Your task to perform on an android device: Go to network settings Image 0: 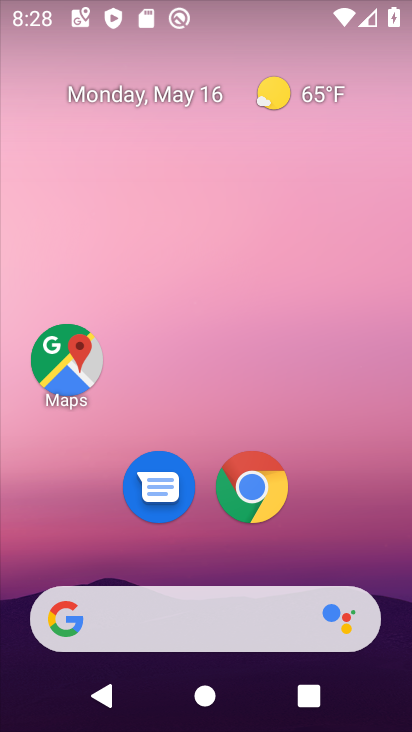
Step 0: drag from (355, 535) to (360, 155)
Your task to perform on an android device: Go to network settings Image 1: 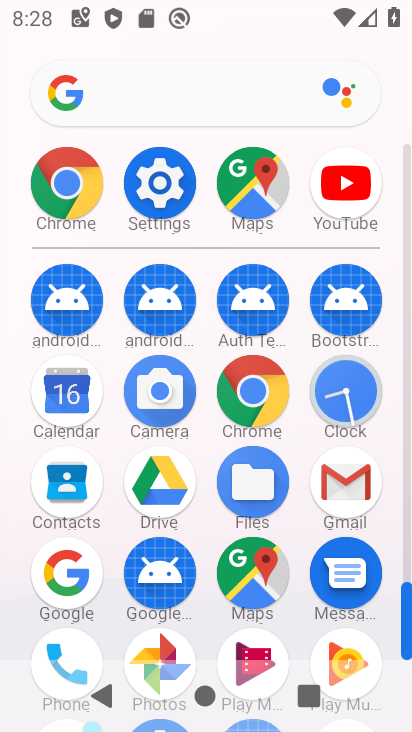
Step 1: click (176, 214)
Your task to perform on an android device: Go to network settings Image 2: 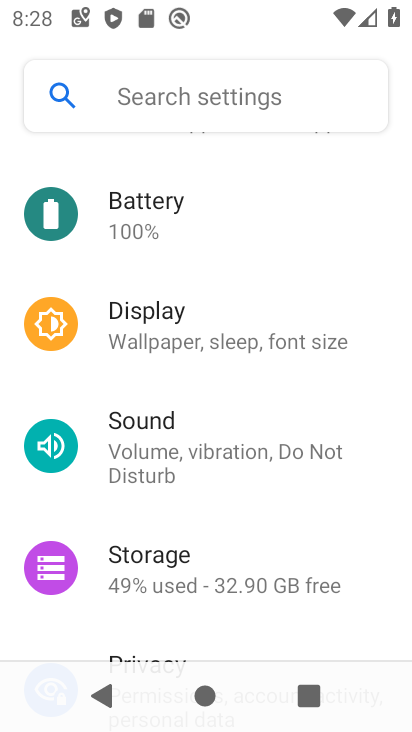
Step 2: drag from (354, 540) to (372, 378)
Your task to perform on an android device: Go to network settings Image 3: 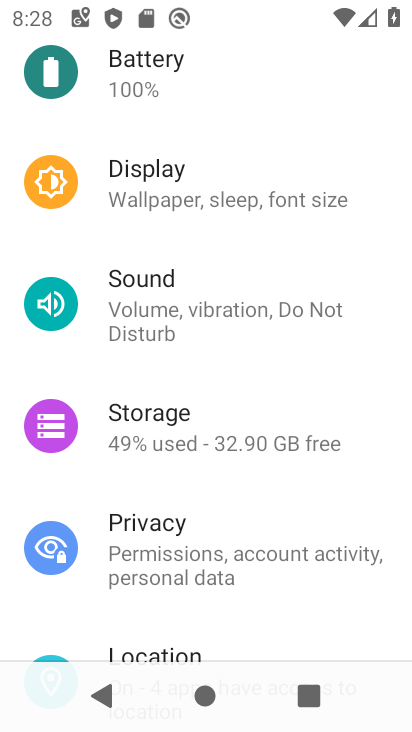
Step 3: drag from (343, 605) to (347, 379)
Your task to perform on an android device: Go to network settings Image 4: 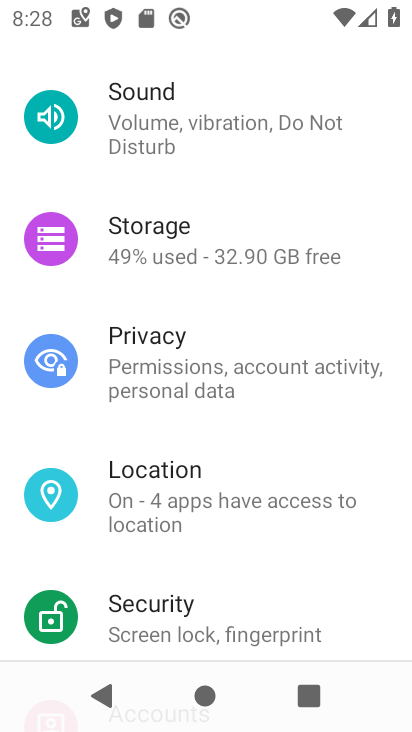
Step 4: drag from (341, 601) to (350, 411)
Your task to perform on an android device: Go to network settings Image 5: 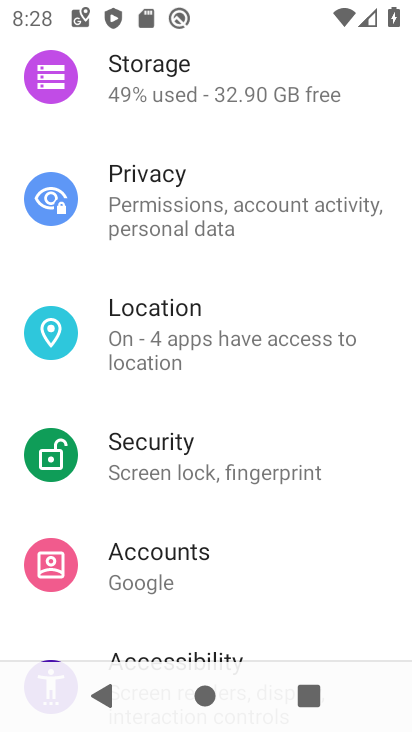
Step 5: drag from (340, 611) to (343, 446)
Your task to perform on an android device: Go to network settings Image 6: 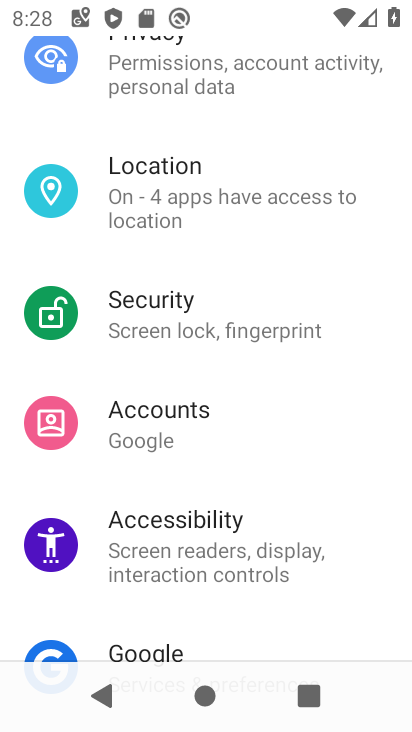
Step 6: drag from (344, 588) to (339, 440)
Your task to perform on an android device: Go to network settings Image 7: 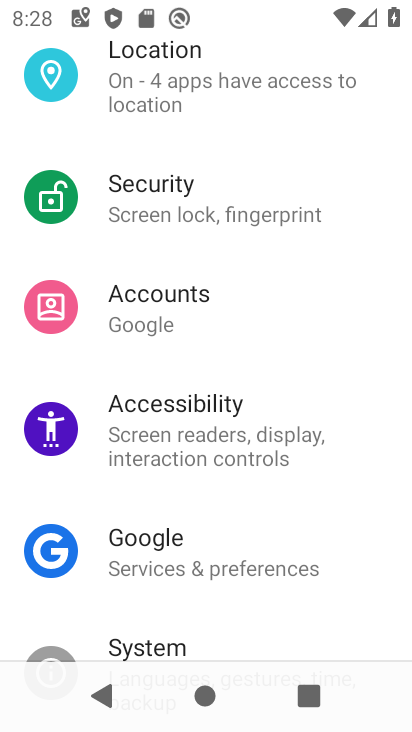
Step 7: drag from (326, 615) to (334, 460)
Your task to perform on an android device: Go to network settings Image 8: 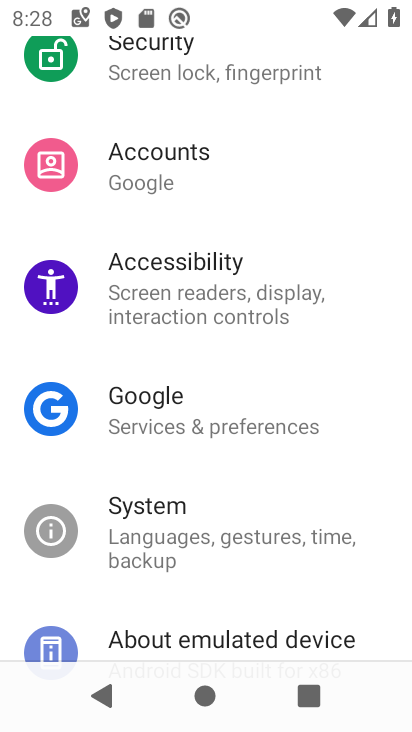
Step 8: drag from (315, 586) to (327, 436)
Your task to perform on an android device: Go to network settings Image 9: 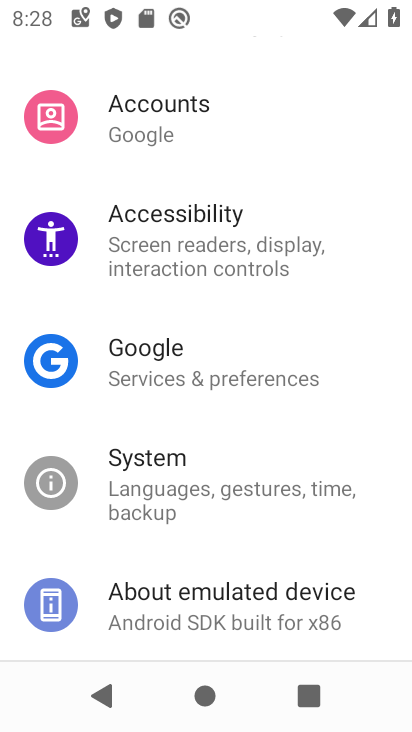
Step 9: drag from (347, 303) to (329, 528)
Your task to perform on an android device: Go to network settings Image 10: 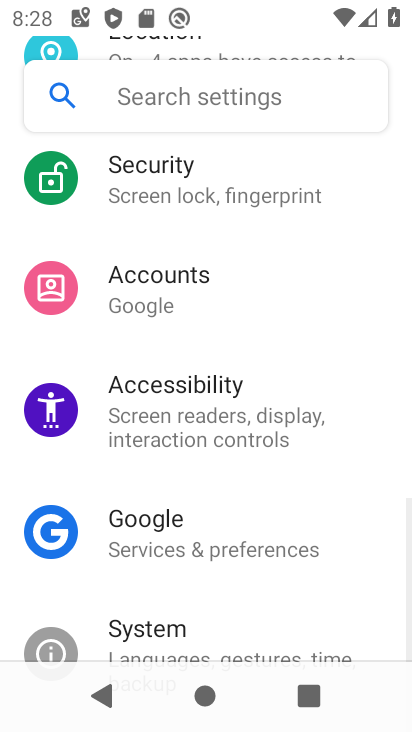
Step 10: drag from (348, 321) to (345, 450)
Your task to perform on an android device: Go to network settings Image 11: 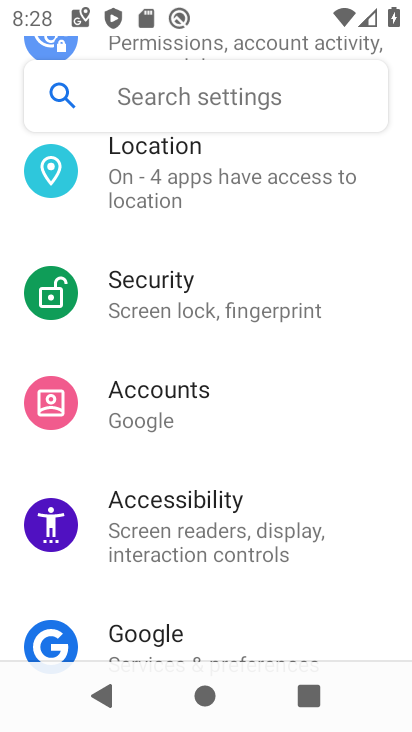
Step 11: drag from (358, 290) to (350, 433)
Your task to perform on an android device: Go to network settings Image 12: 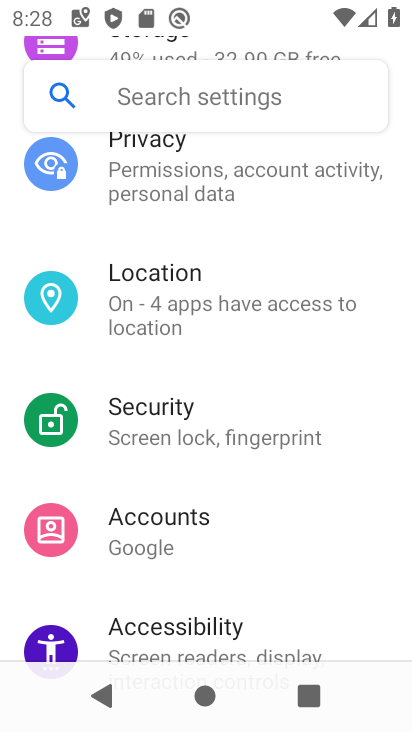
Step 12: drag from (366, 240) to (352, 407)
Your task to perform on an android device: Go to network settings Image 13: 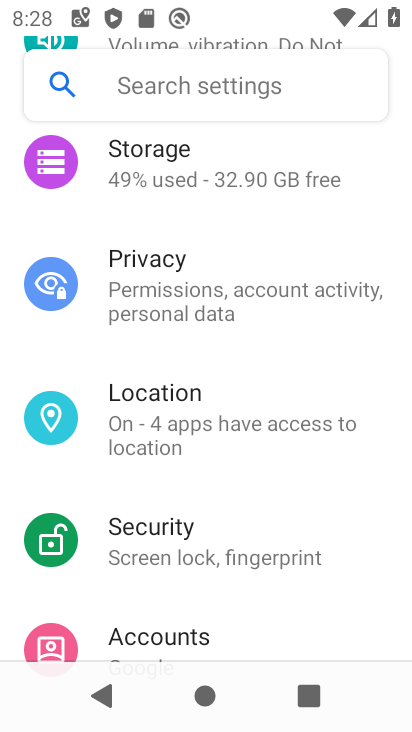
Step 13: drag from (377, 171) to (352, 406)
Your task to perform on an android device: Go to network settings Image 14: 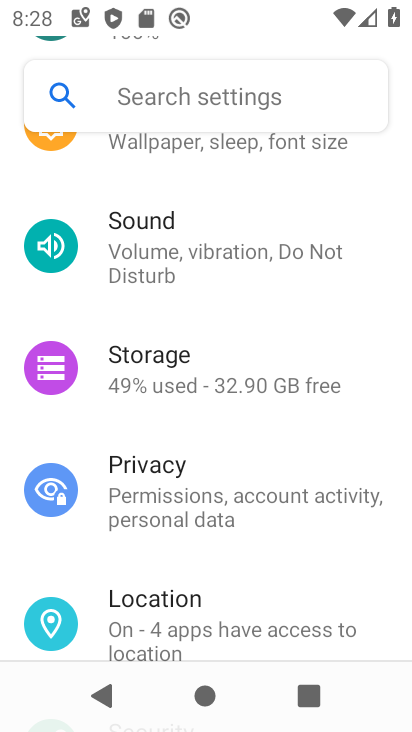
Step 14: drag from (364, 187) to (354, 378)
Your task to perform on an android device: Go to network settings Image 15: 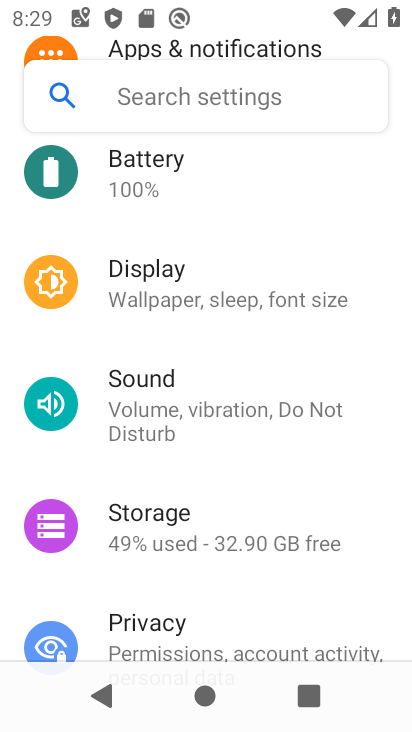
Step 15: drag from (356, 211) to (364, 362)
Your task to perform on an android device: Go to network settings Image 16: 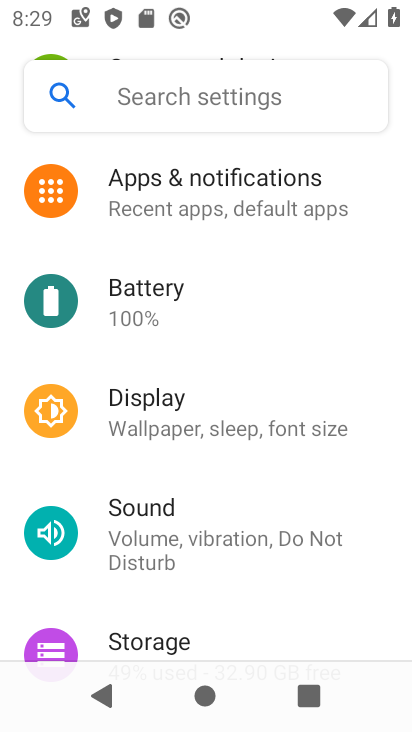
Step 16: drag from (367, 193) to (358, 338)
Your task to perform on an android device: Go to network settings Image 17: 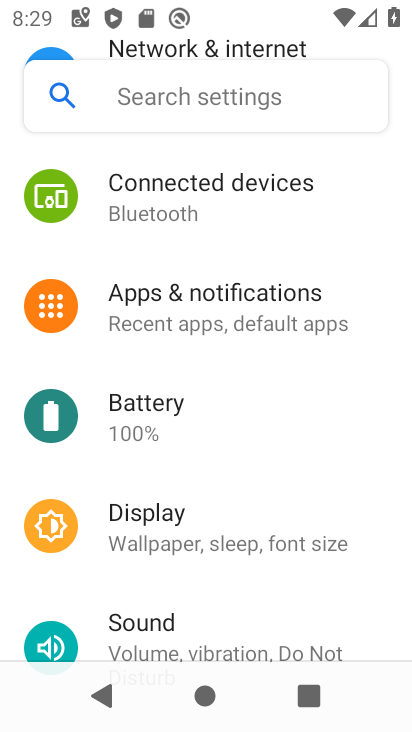
Step 17: drag from (365, 191) to (336, 369)
Your task to perform on an android device: Go to network settings Image 18: 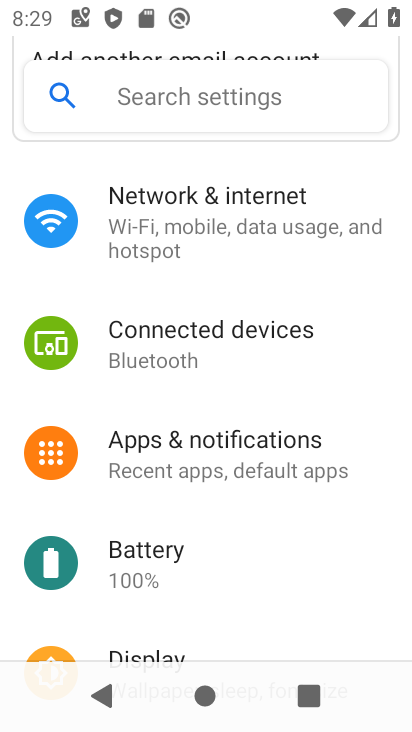
Step 18: click (282, 225)
Your task to perform on an android device: Go to network settings Image 19: 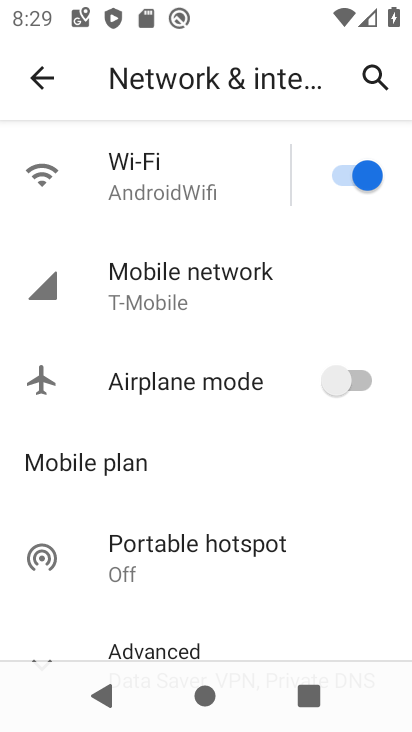
Step 19: task complete